Your task to perform on an android device: Open the map Image 0: 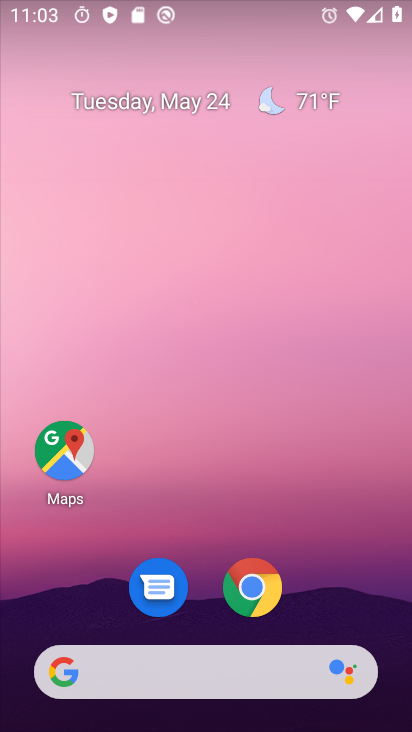
Step 0: drag from (326, 675) to (168, 59)
Your task to perform on an android device: Open the map Image 1: 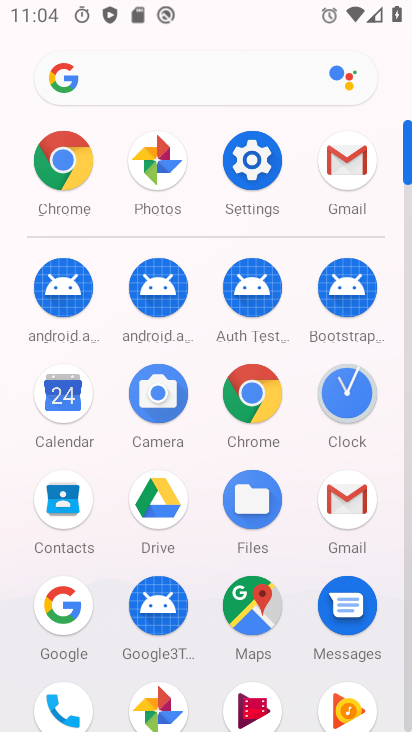
Step 1: click (251, 602)
Your task to perform on an android device: Open the map Image 2: 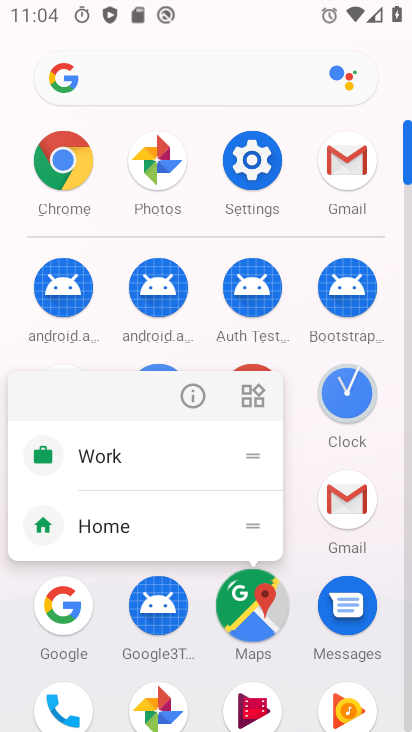
Step 2: click (259, 605)
Your task to perform on an android device: Open the map Image 3: 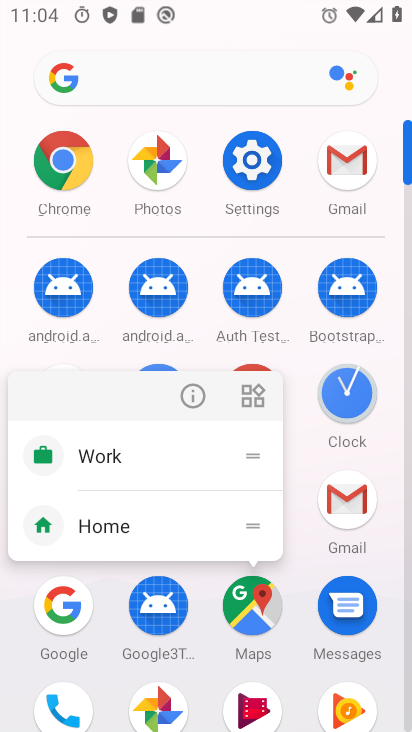
Step 3: click (261, 601)
Your task to perform on an android device: Open the map Image 4: 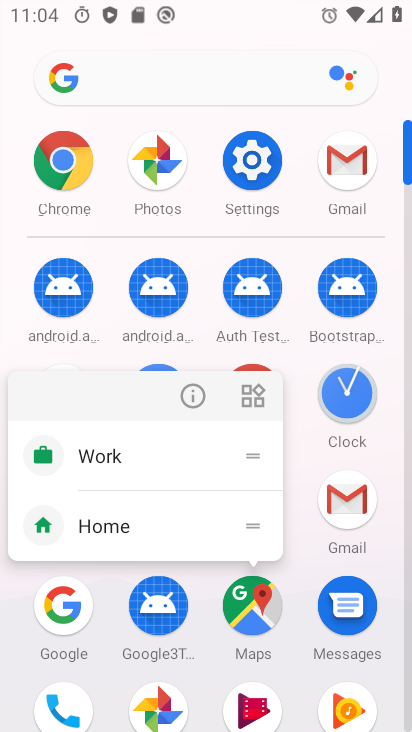
Step 4: click (263, 600)
Your task to perform on an android device: Open the map Image 5: 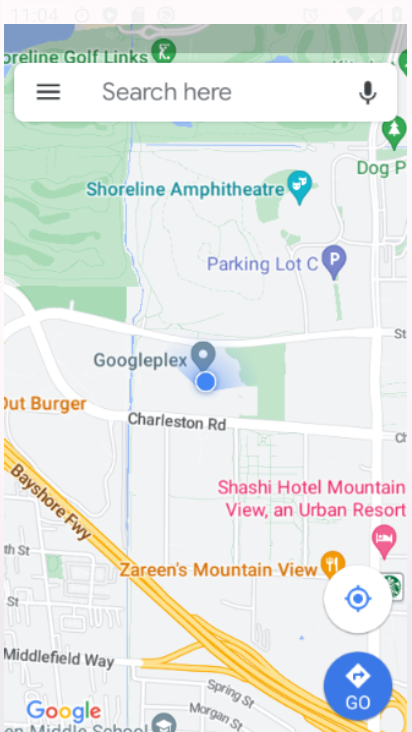
Step 5: click (263, 600)
Your task to perform on an android device: Open the map Image 6: 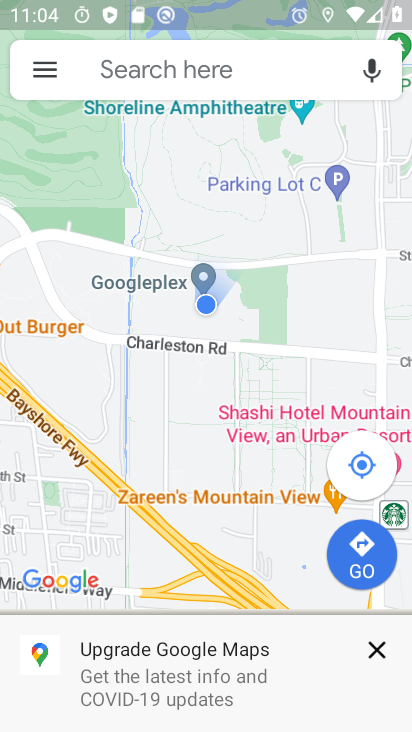
Step 6: task complete